Your task to perform on an android device: What is the news today? Image 0: 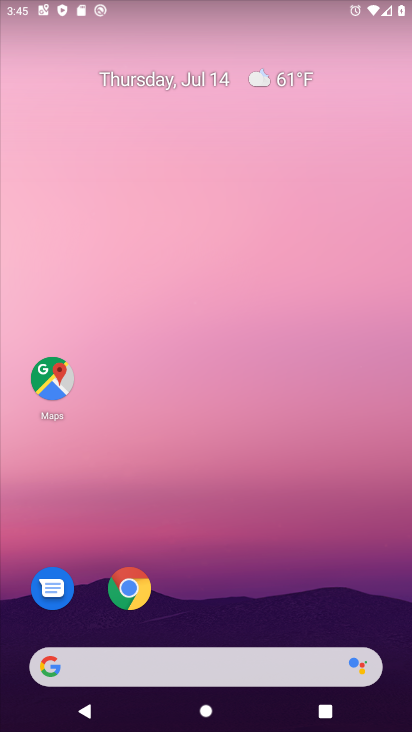
Step 0: press home button
Your task to perform on an android device: What is the news today? Image 1: 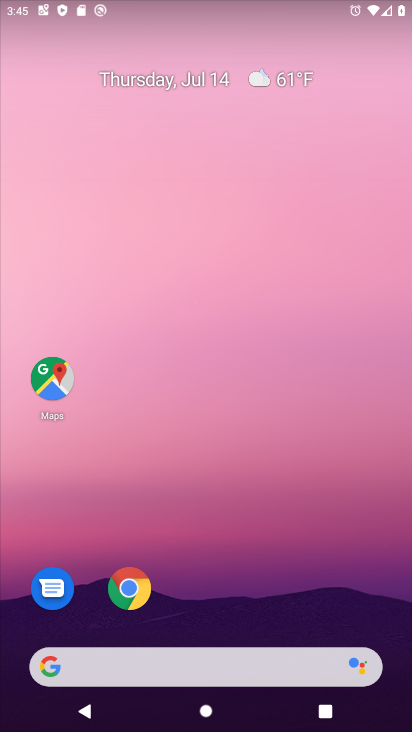
Step 1: click (45, 669)
Your task to perform on an android device: What is the news today? Image 2: 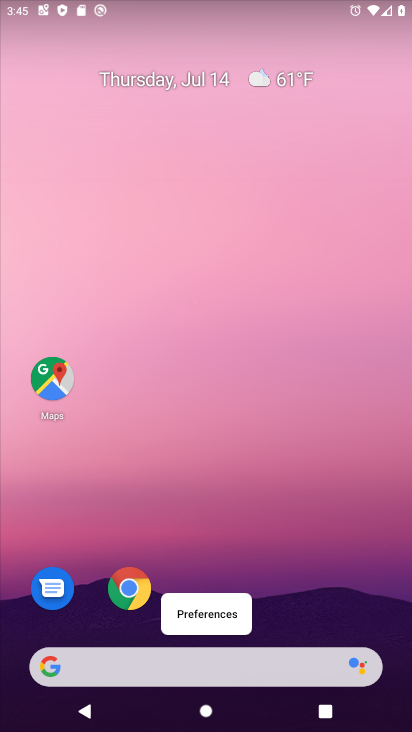
Step 2: click (45, 661)
Your task to perform on an android device: What is the news today? Image 3: 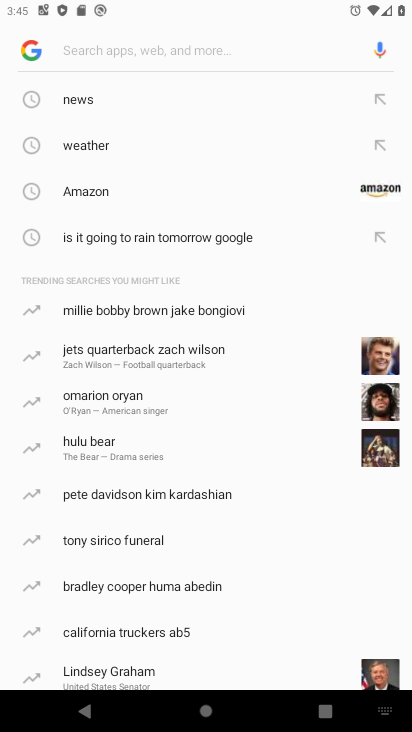
Step 3: type "What is the news today?"
Your task to perform on an android device: What is the news today? Image 4: 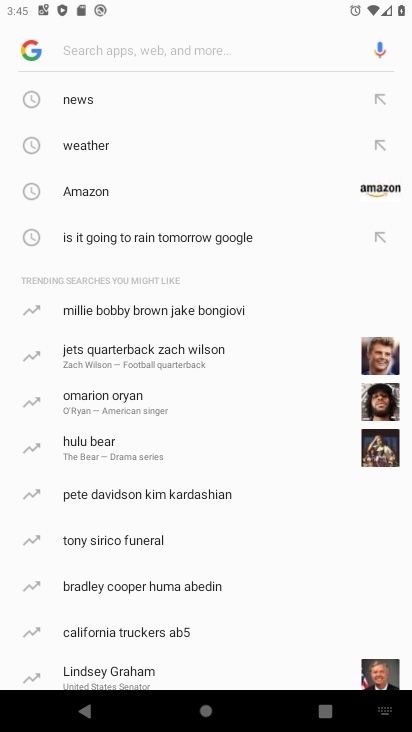
Step 4: click (72, 49)
Your task to perform on an android device: What is the news today? Image 5: 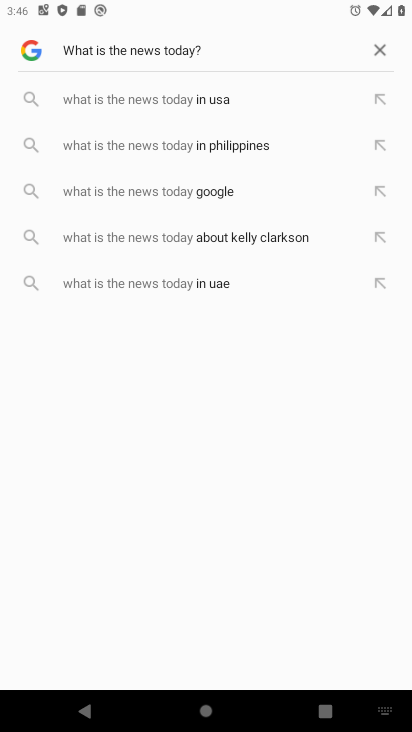
Step 5: press enter
Your task to perform on an android device: What is the news today? Image 6: 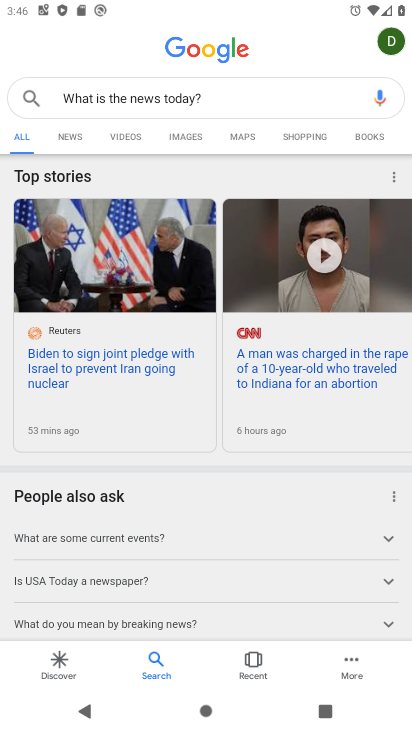
Step 6: task complete